Your task to perform on an android device: Go to wifi settings Image 0: 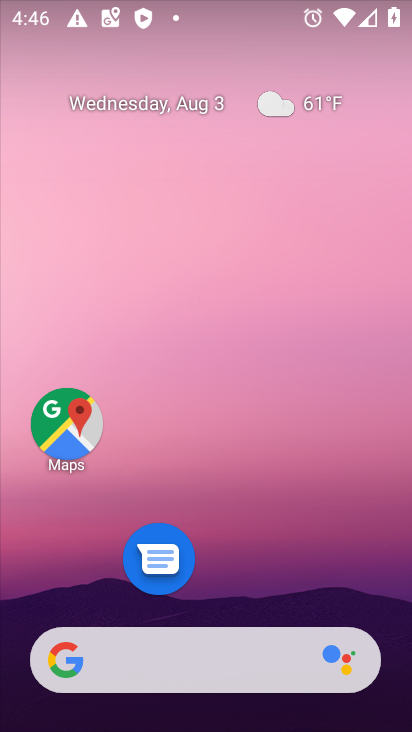
Step 0: drag from (203, 628) to (196, 71)
Your task to perform on an android device: Go to wifi settings Image 1: 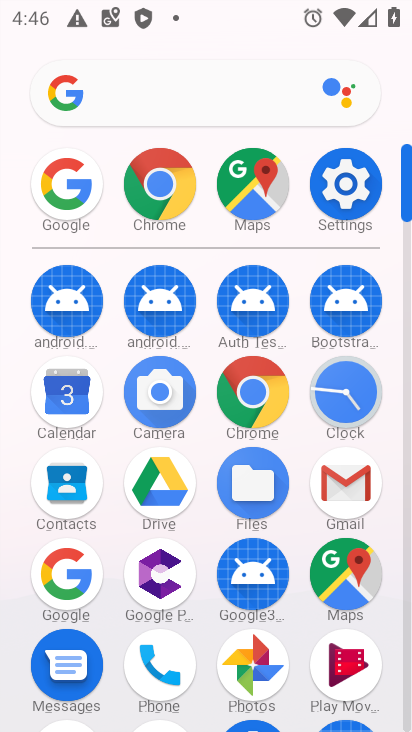
Step 1: click (366, 175)
Your task to perform on an android device: Go to wifi settings Image 2: 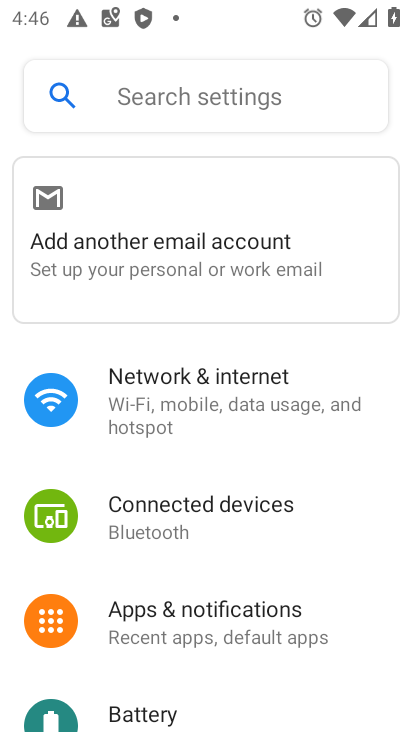
Step 2: click (174, 396)
Your task to perform on an android device: Go to wifi settings Image 3: 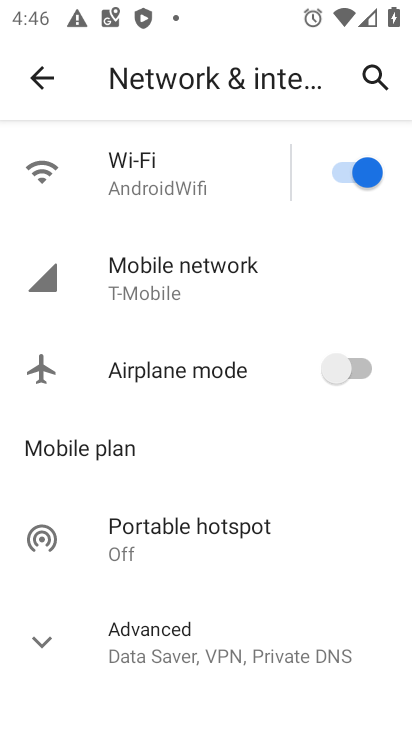
Step 3: click (158, 180)
Your task to perform on an android device: Go to wifi settings Image 4: 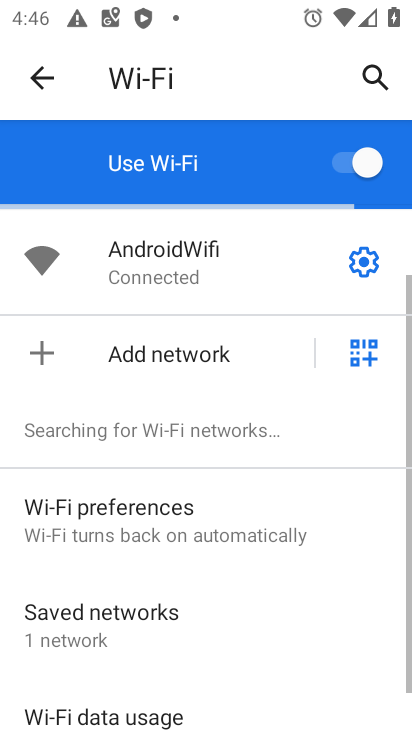
Step 4: click (359, 268)
Your task to perform on an android device: Go to wifi settings Image 5: 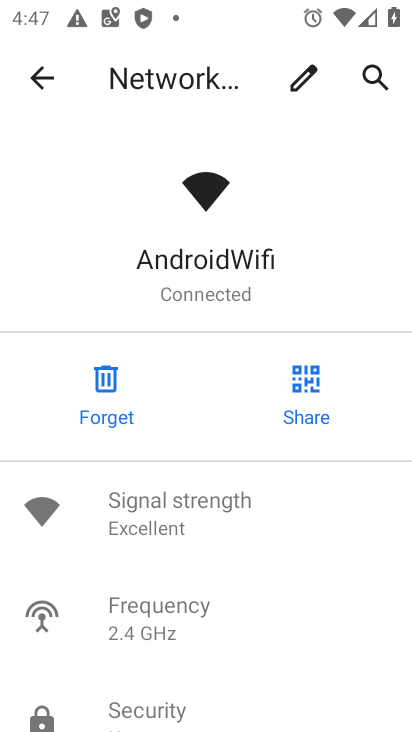
Step 5: task complete